Your task to perform on an android device: Check the weather Image 0: 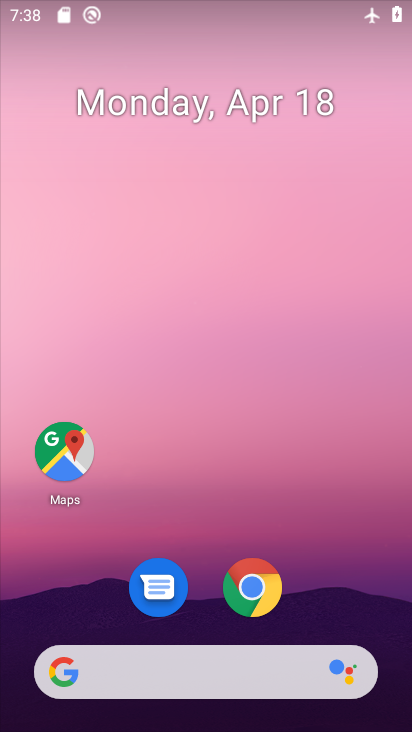
Step 0: click (68, 672)
Your task to perform on an android device: Check the weather Image 1: 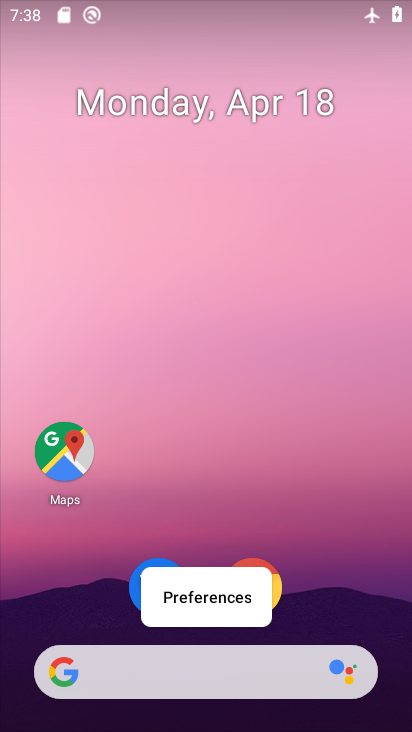
Step 1: click (68, 672)
Your task to perform on an android device: Check the weather Image 2: 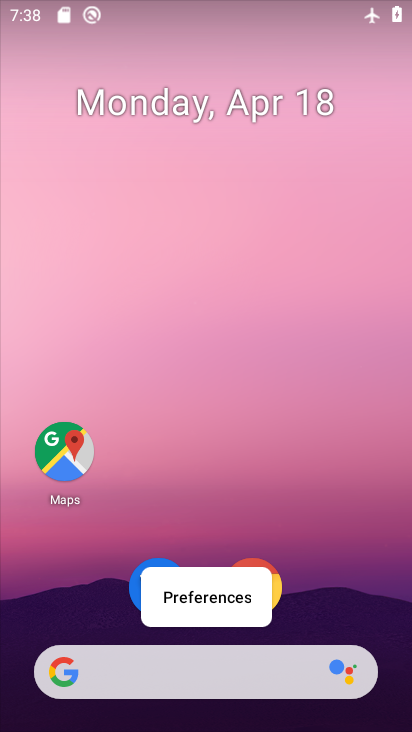
Step 2: click (68, 672)
Your task to perform on an android device: Check the weather Image 3: 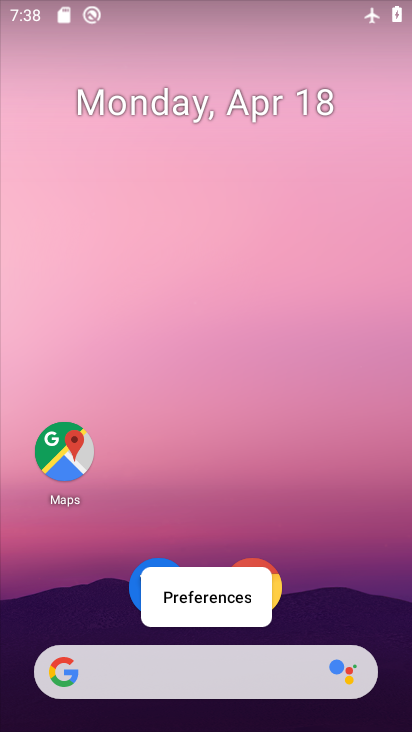
Step 3: click (95, 676)
Your task to perform on an android device: Check the weather Image 4: 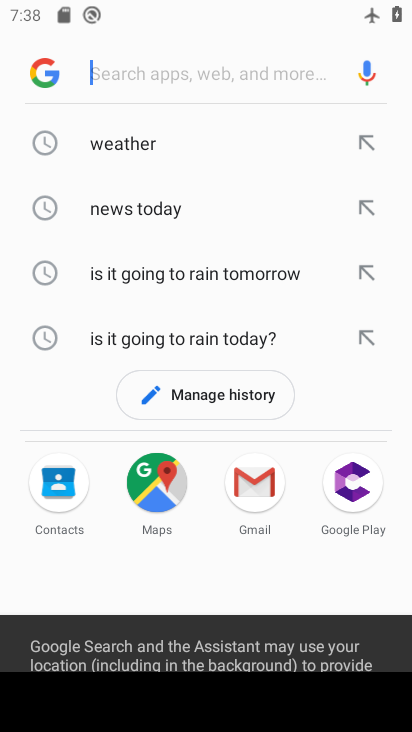
Step 4: click (53, 84)
Your task to perform on an android device: Check the weather Image 5: 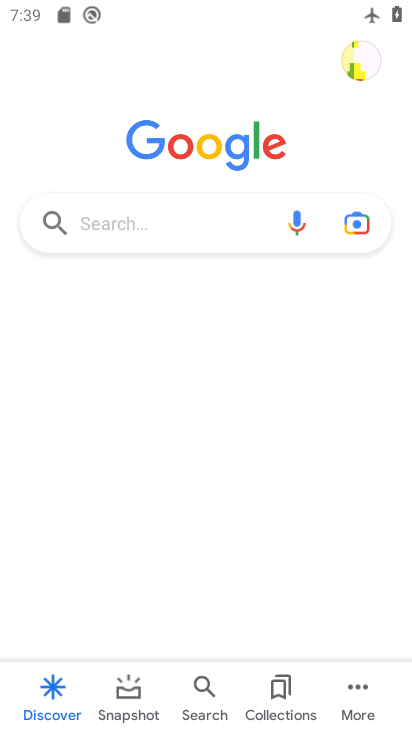
Step 5: drag from (278, 7) to (193, 565)
Your task to perform on an android device: Check the weather Image 6: 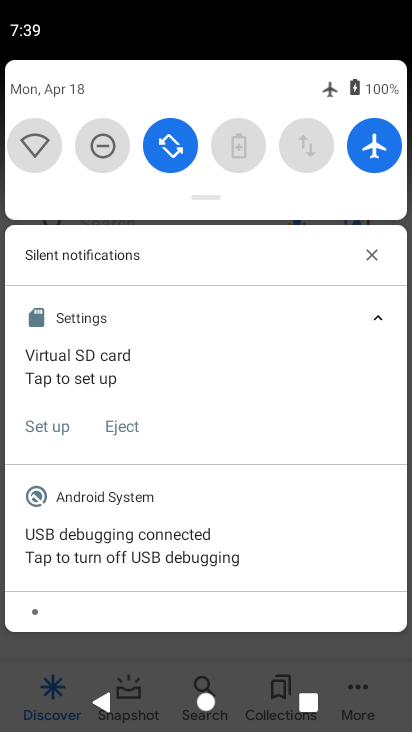
Step 6: click (368, 136)
Your task to perform on an android device: Check the weather Image 7: 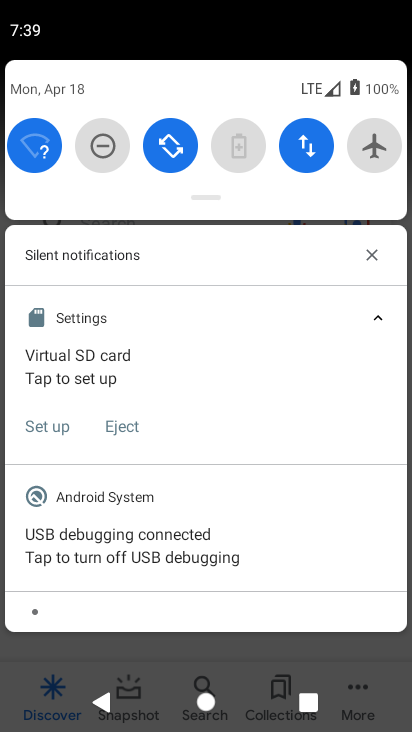
Step 7: task complete